Your task to perform on an android device: Open calendar and show me the second week of next month Image 0: 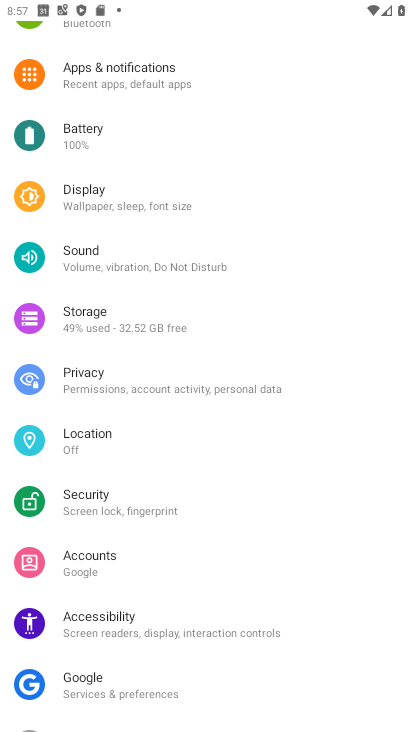
Step 0: press home button
Your task to perform on an android device: Open calendar and show me the second week of next month Image 1: 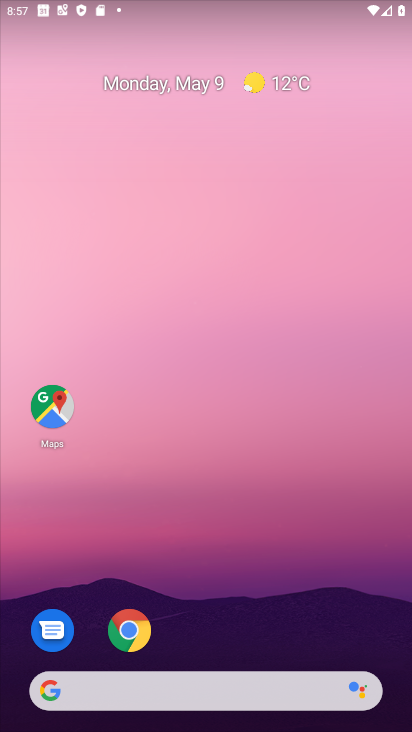
Step 1: drag from (167, 671) to (221, 268)
Your task to perform on an android device: Open calendar and show me the second week of next month Image 2: 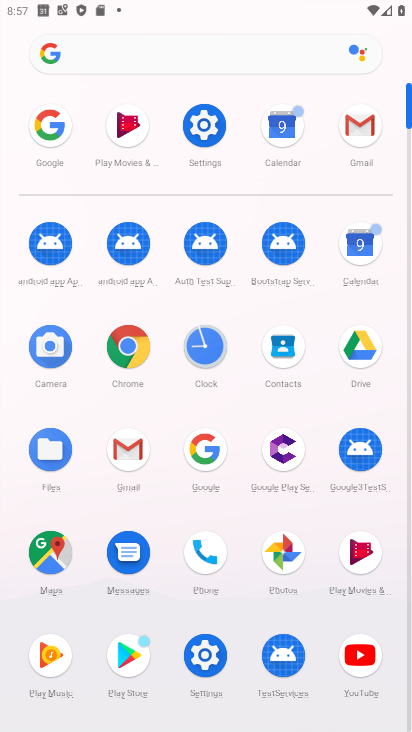
Step 2: click (355, 250)
Your task to perform on an android device: Open calendar and show me the second week of next month Image 3: 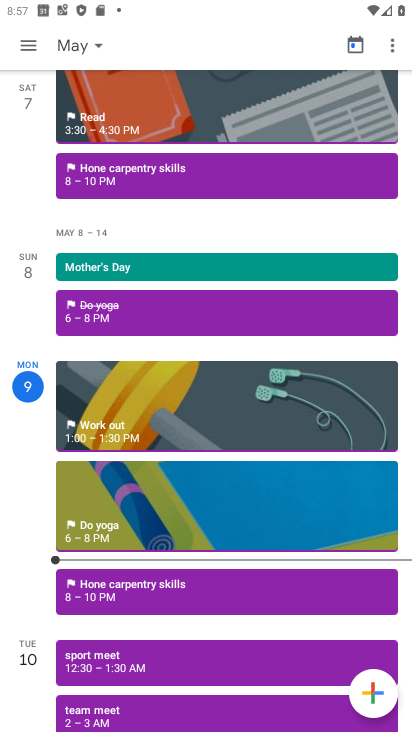
Step 3: drag from (309, 213) to (323, 317)
Your task to perform on an android device: Open calendar and show me the second week of next month Image 4: 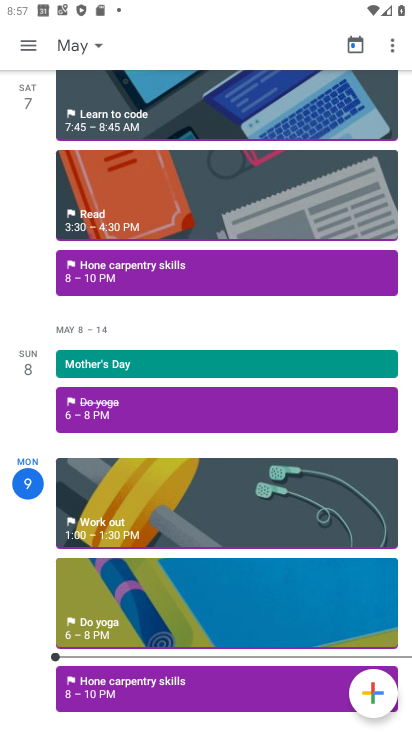
Step 4: drag from (278, 105) to (284, 424)
Your task to perform on an android device: Open calendar and show me the second week of next month Image 5: 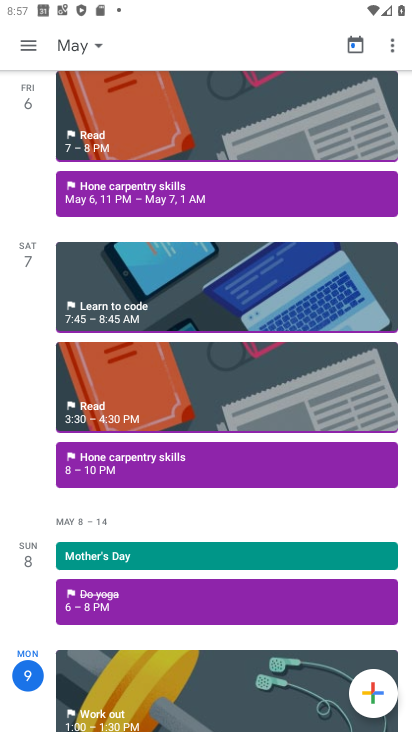
Step 5: drag from (151, 128) to (165, 461)
Your task to perform on an android device: Open calendar and show me the second week of next month Image 6: 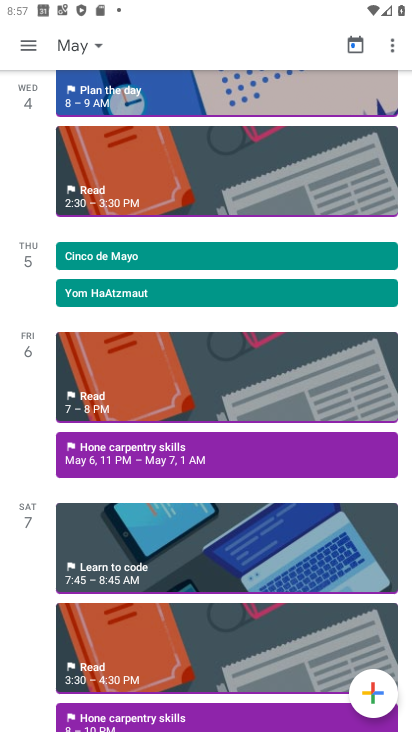
Step 6: drag from (127, 633) to (145, 258)
Your task to perform on an android device: Open calendar and show me the second week of next month Image 7: 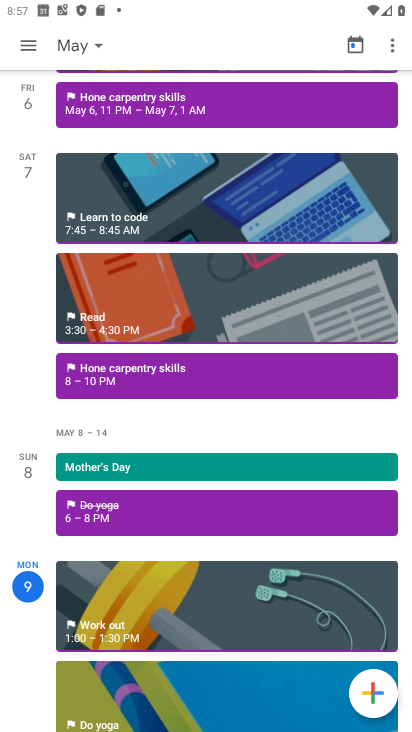
Step 7: click (78, 47)
Your task to perform on an android device: Open calendar and show me the second week of next month Image 8: 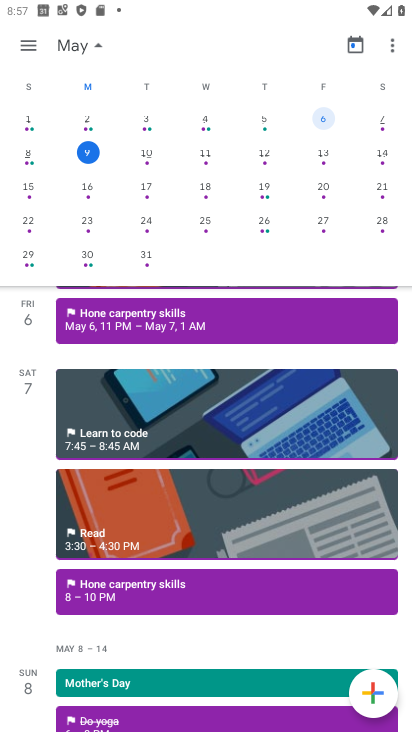
Step 8: drag from (303, 215) to (0, 223)
Your task to perform on an android device: Open calendar and show me the second week of next month Image 9: 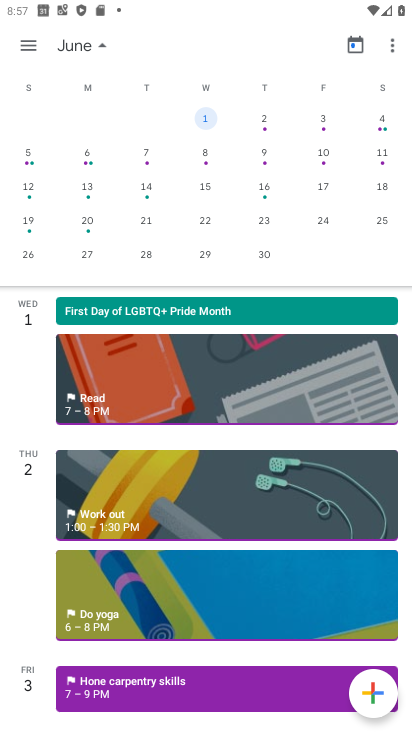
Step 9: click (25, 154)
Your task to perform on an android device: Open calendar and show me the second week of next month Image 10: 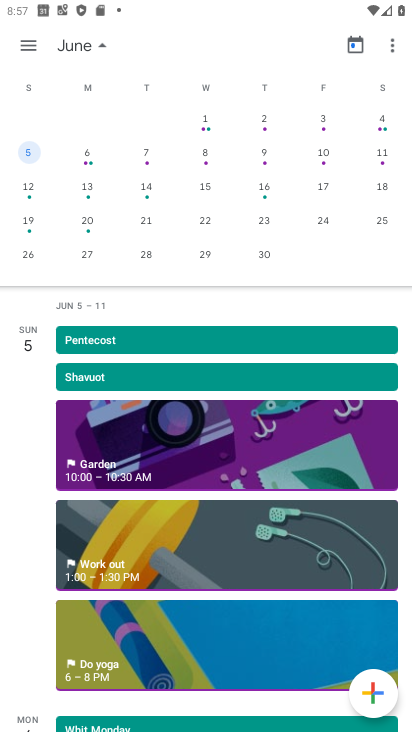
Step 10: task complete